Your task to perform on an android device: set an alarm Image 0: 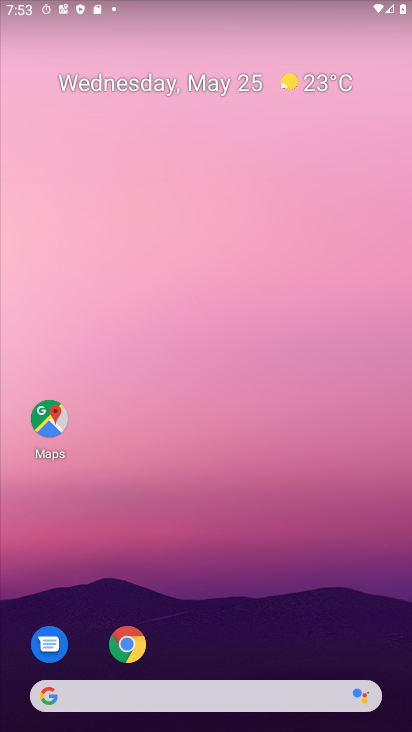
Step 0: drag from (294, 668) to (136, 116)
Your task to perform on an android device: set an alarm Image 1: 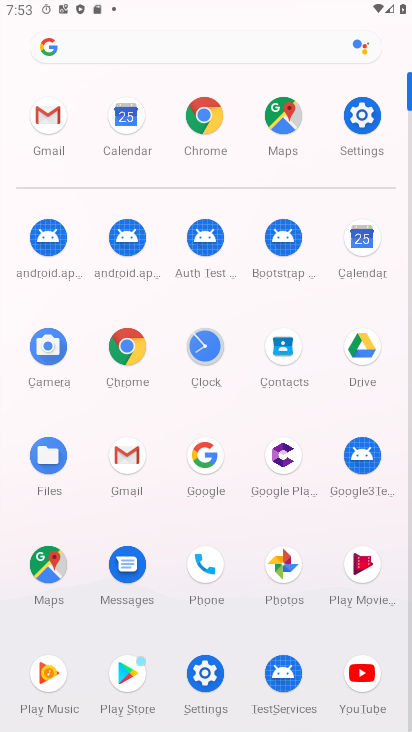
Step 1: click (204, 336)
Your task to perform on an android device: set an alarm Image 2: 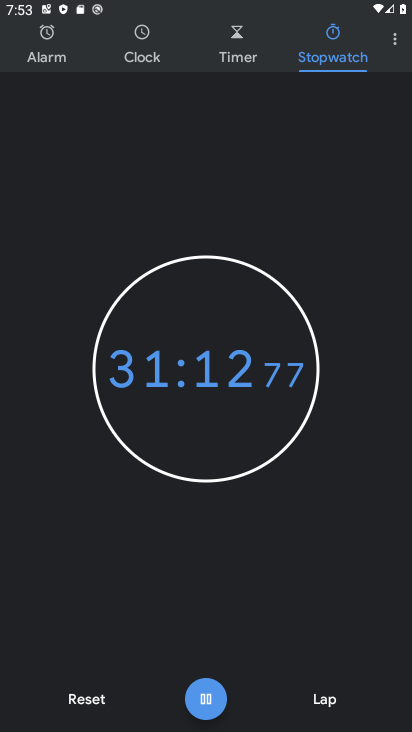
Step 2: click (35, 47)
Your task to perform on an android device: set an alarm Image 3: 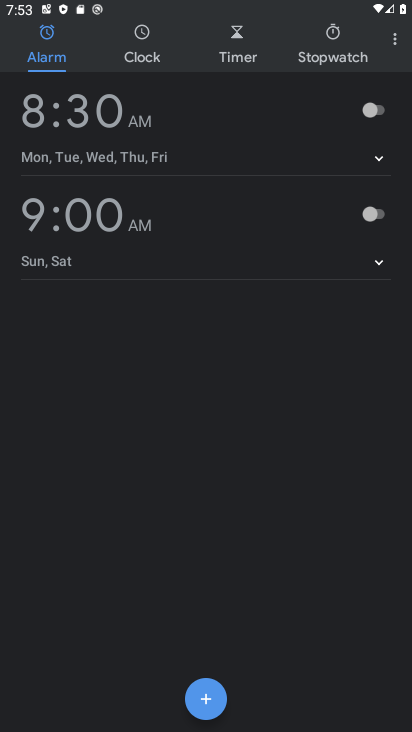
Step 3: click (176, 136)
Your task to perform on an android device: set an alarm Image 4: 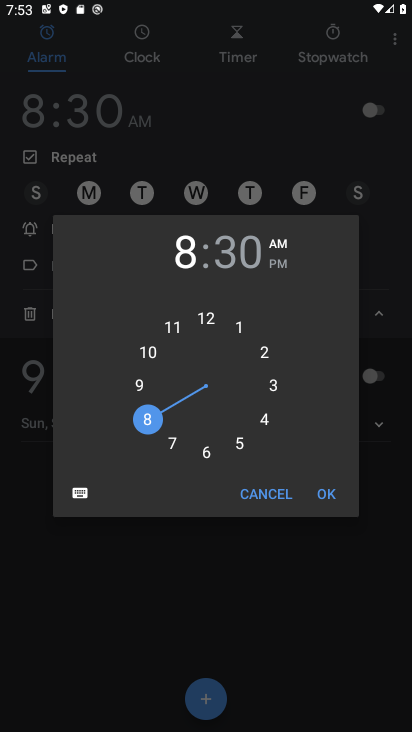
Step 4: click (166, 379)
Your task to perform on an android device: set an alarm Image 5: 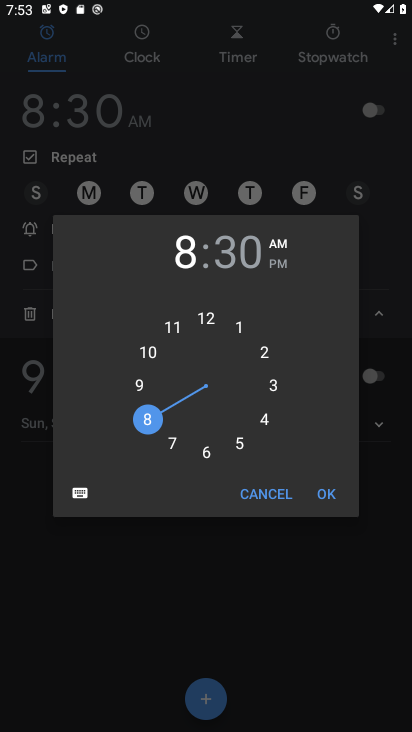
Step 5: click (151, 348)
Your task to perform on an android device: set an alarm Image 6: 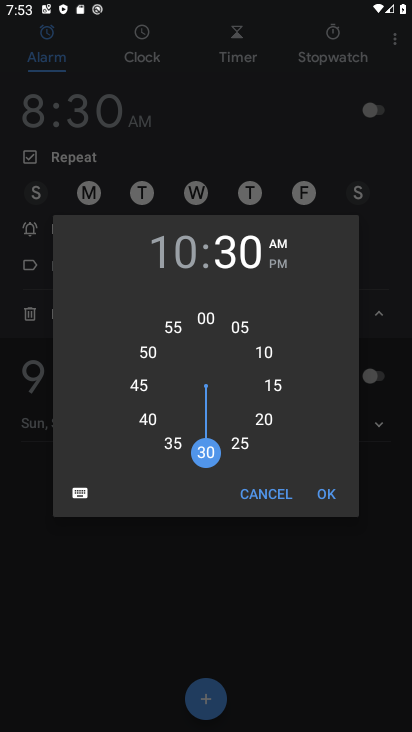
Step 6: click (321, 499)
Your task to perform on an android device: set an alarm Image 7: 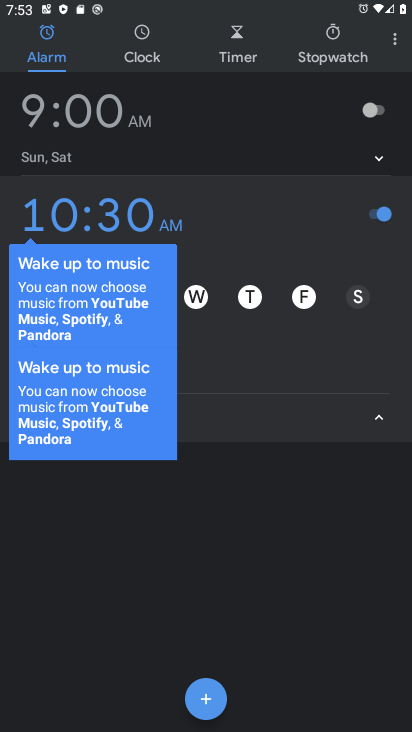
Step 7: click (375, 118)
Your task to perform on an android device: set an alarm Image 8: 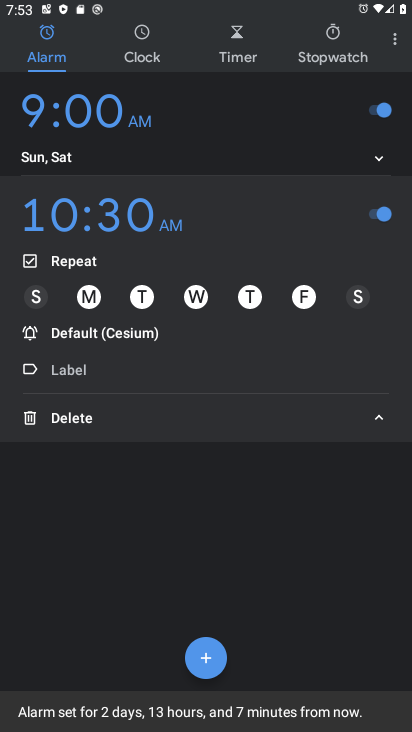
Step 8: task complete